Your task to perform on an android device: Open Google Chrome and click the shortcut for Amazon.com Image 0: 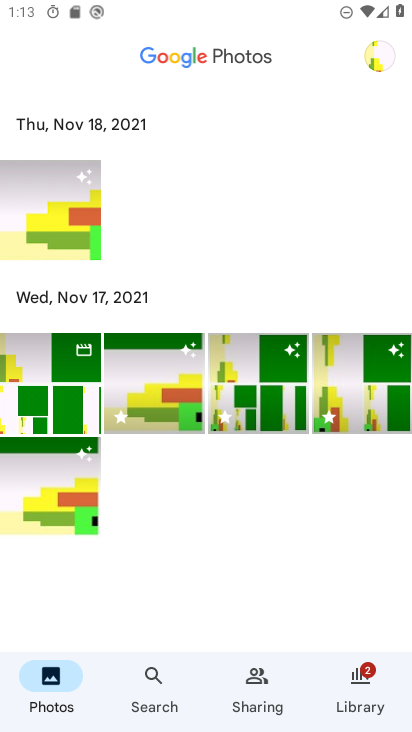
Step 0: press home button
Your task to perform on an android device: Open Google Chrome and click the shortcut for Amazon.com Image 1: 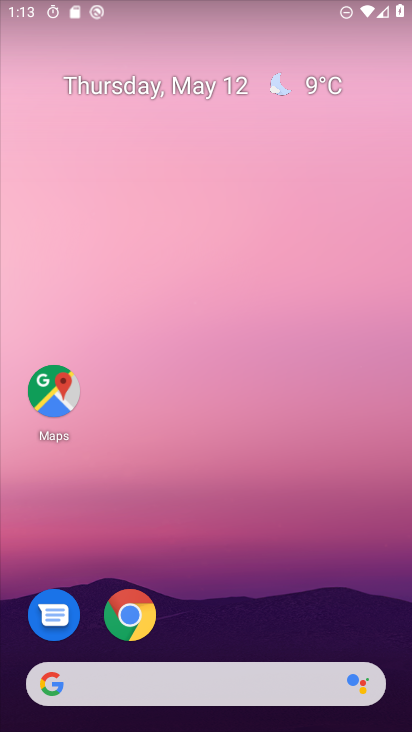
Step 1: click (129, 626)
Your task to perform on an android device: Open Google Chrome and click the shortcut for Amazon.com Image 2: 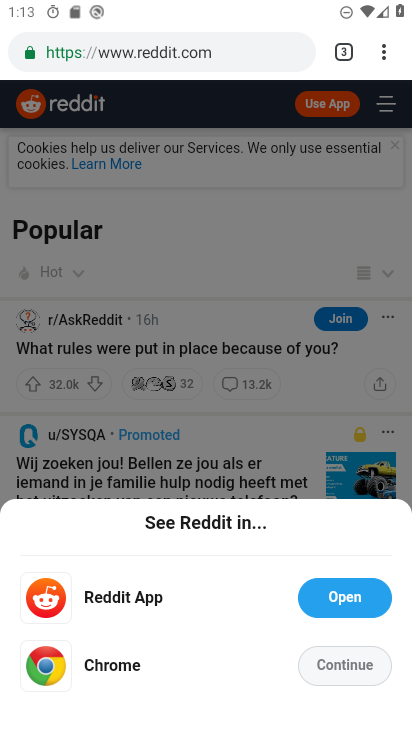
Step 2: click (222, 63)
Your task to perform on an android device: Open Google Chrome and click the shortcut for Amazon.com Image 3: 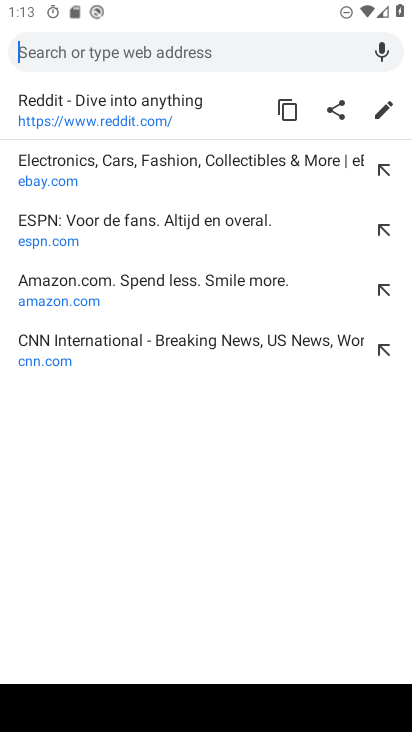
Step 3: press back button
Your task to perform on an android device: Open Google Chrome and click the shortcut for Amazon.com Image 4: 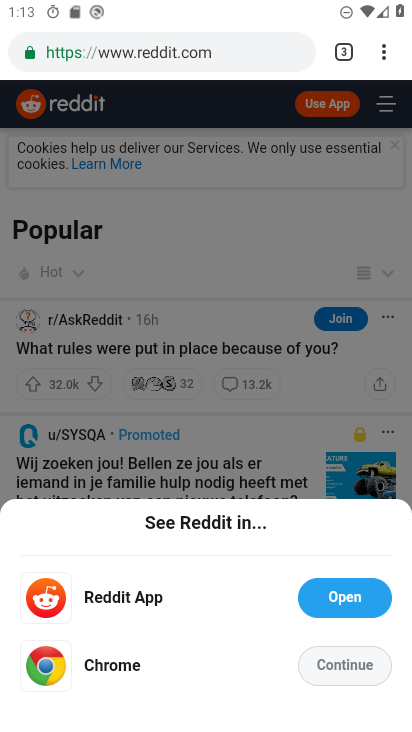
Step 4: drag from (383, 51) to (230, 117)
Your task to perform on an android device: Open Google Chrome and click the shortcut for Amazon.com Image 5: 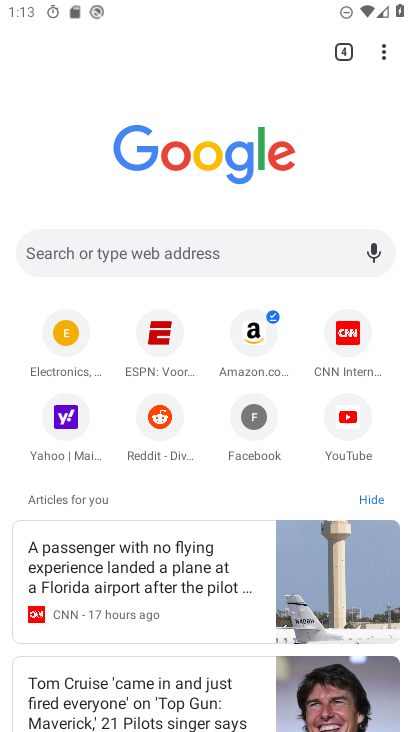
Step 5: click (259, 340)
Your task to perform on an android device: Open Google Chrome and click the shortcut for Amazon.com Image 6: 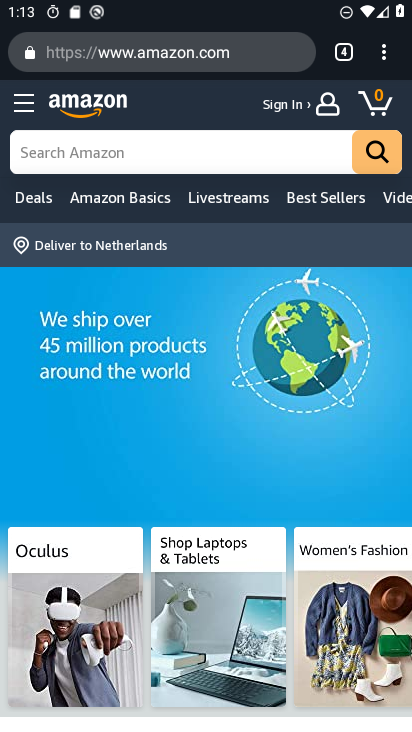
Step 6: task complete